Your task to perform on an android device: change notifications settings Image 0: 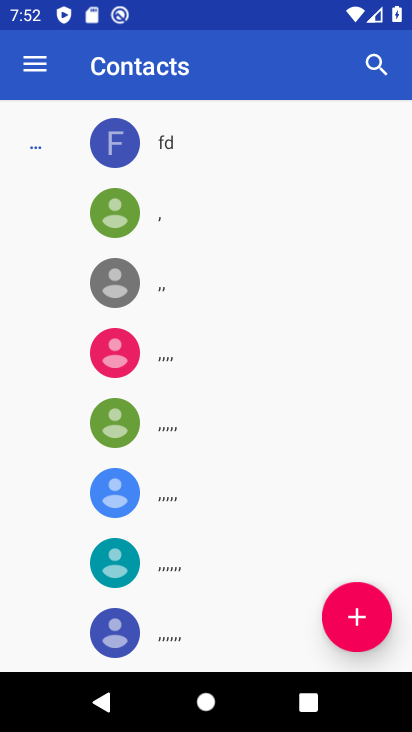
Step 0: press home button
Your task to perform on an android device: change notifications settings Image 1: 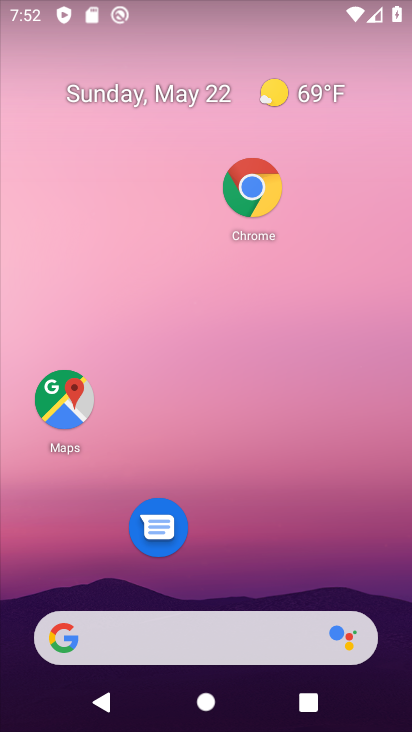
Step 1: drag from (215, 590) to (251, 2)
Your task to perform on an android device: change notifications settings Image 2: 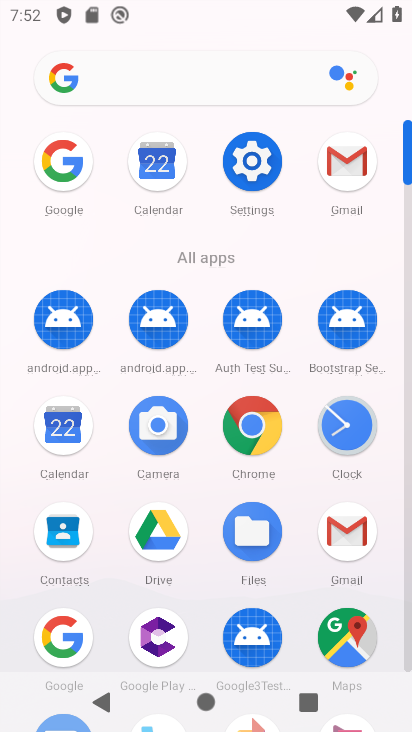
Step 2: click (250, 153)
Your task to perform on an android device: change notifications settings Image 3: 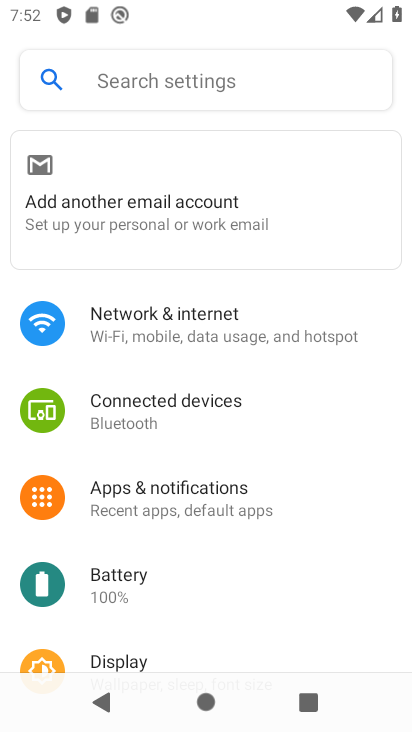
Step 3: click (206, 495)
Your task to perform on an android device: change notifications settings Image 4: 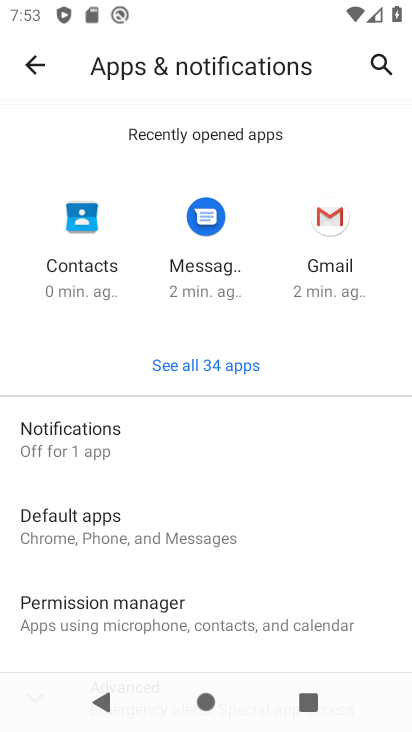
Step 4: click (120, 439)
Your task to perform on an android device: change notifications settings Image 5: 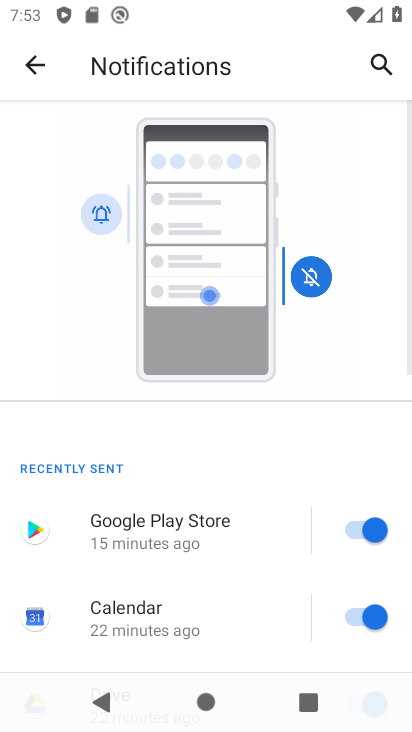
Step 5: drag from (236, 596) to (220, 67)
Your task to perform on an android device: change notifications settings Image 6: 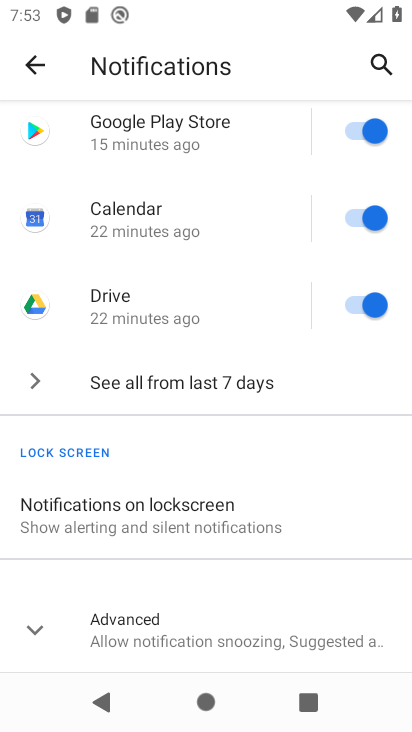
Step 6: click (349, 127)
Your task to perform on an android device: change notifications settings Image 7: 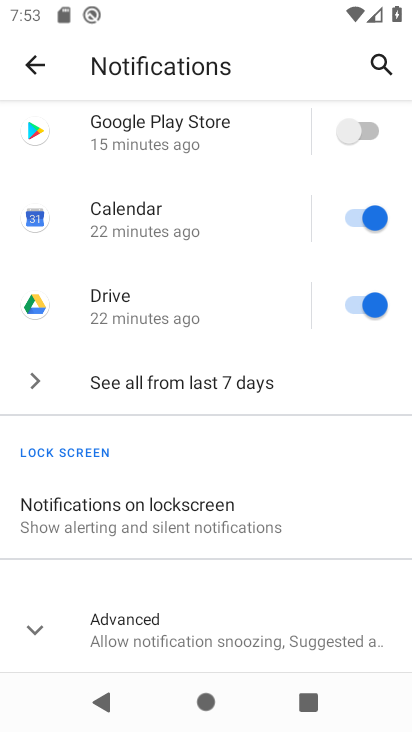
Step 7: click (351, 219)
Your task to perform on an android device: change notifications settings Image 8: 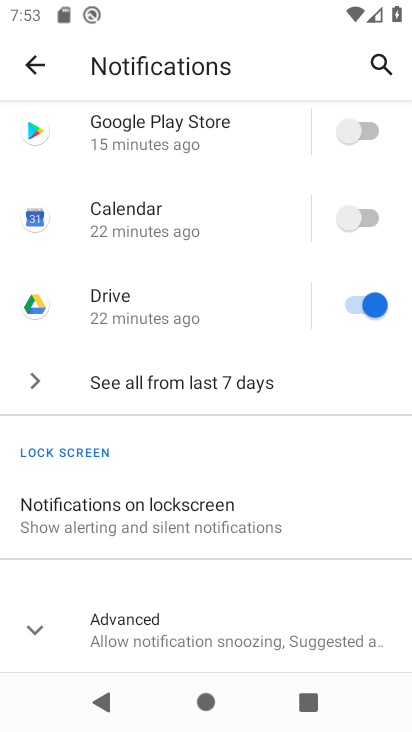
Step 8: click (359, 303)
Your task to perform on an android device: change notifications settings Image 9: 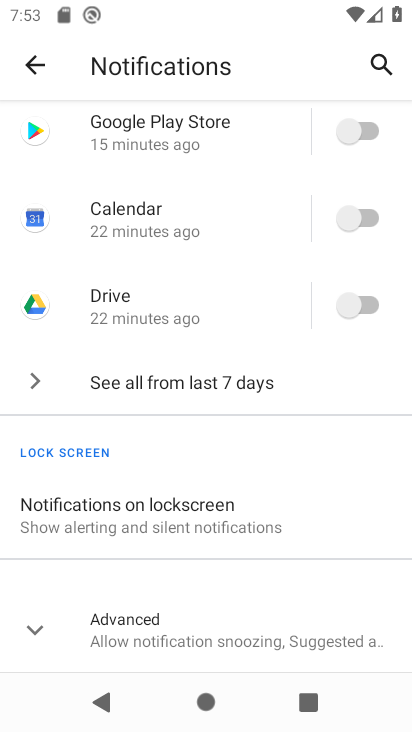
Step 9: click (174, 512)
Your task to perform on an android device: change notifications settings Image 10: 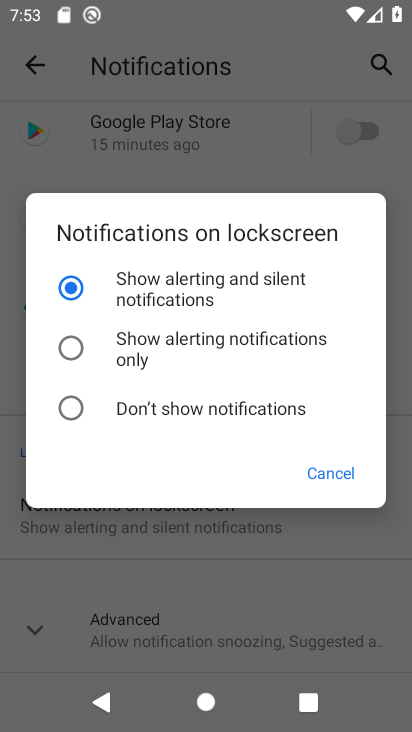
Step 10: click (69, 348)
Your task to perform on an android device: change notifications settings Image 11: 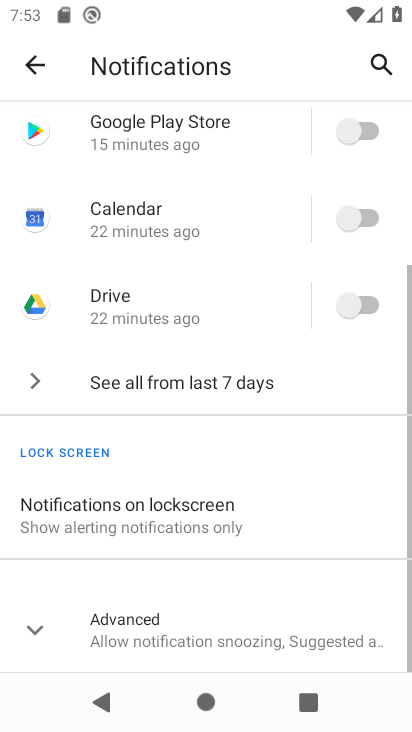
Step 11: drag from (117, 578) to (147, 143)
Your task to perform on an android device: change notifications settings Image 12: 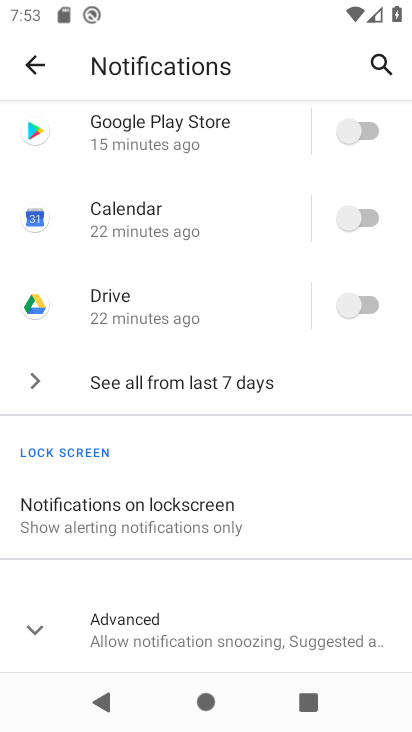
Step 12: click (32, 622)
Your task to perform on an android device: change notifications settings Image 13: 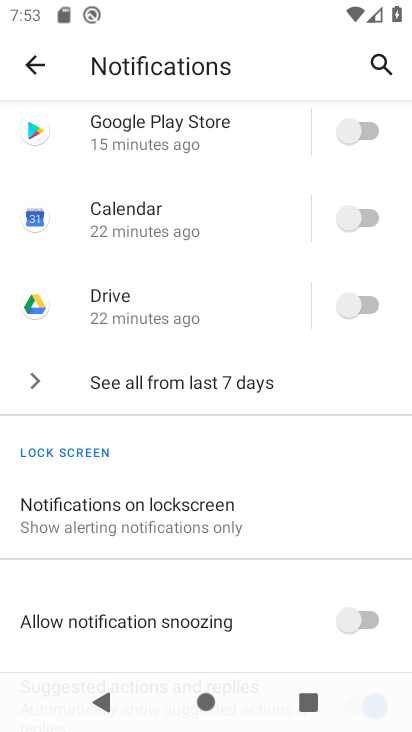
Step 13: drag from (248, 619) to (255, 110)
Your task to perform on an android device: change notifications settings Image 14: 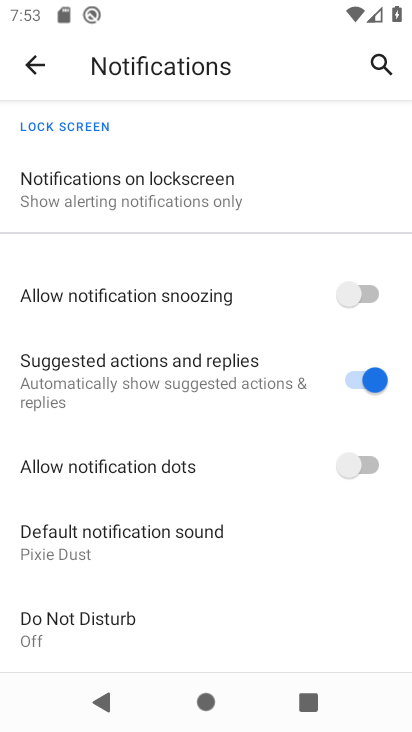
Step 14: click (361, 285)
Your task to perform on an android device: change notifications settings Image 15: 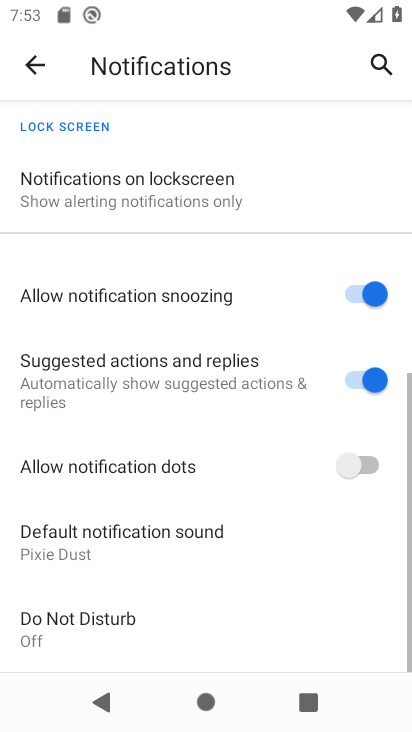
Step 15: click (364, 377)
Your task to perform on an android device: change notifications settings Image 16: 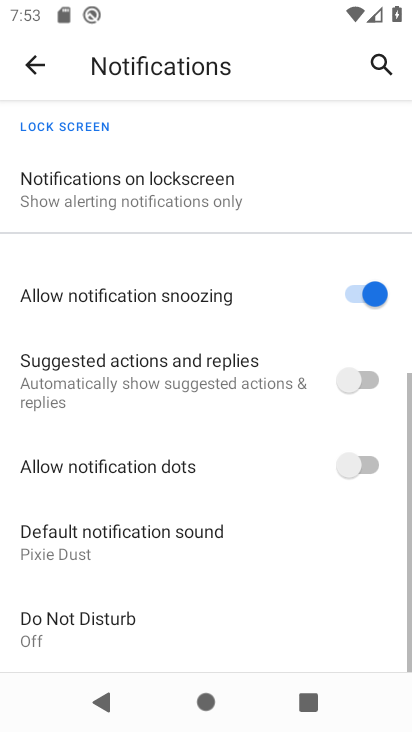
Step 16: click (371, 457)
Your task to perform on an android device: change notifications settings Image 17: 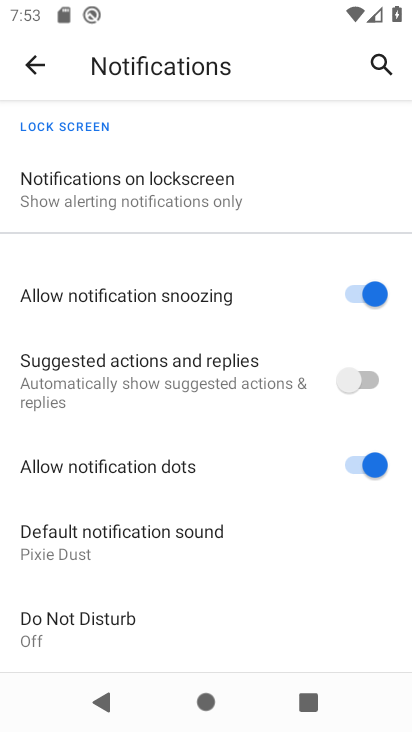
Step 17: task complete